Your task to perform on an android device: star an email in the gmail app Image 0: 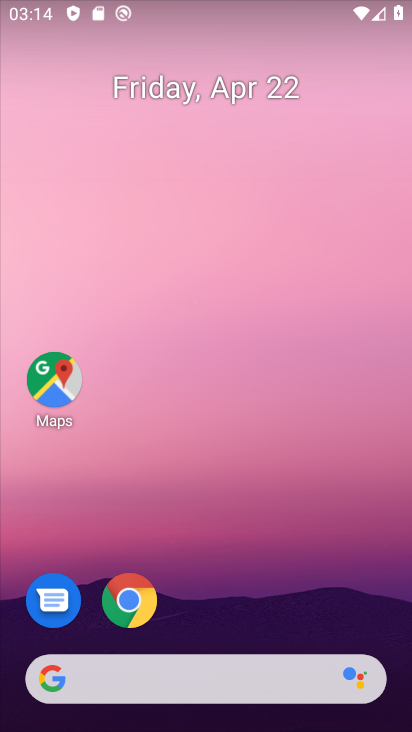
Step 0: drag from (225, 618) to (213, 120)
Your task to perform on an android device: star an email in the gmail app Image 1: 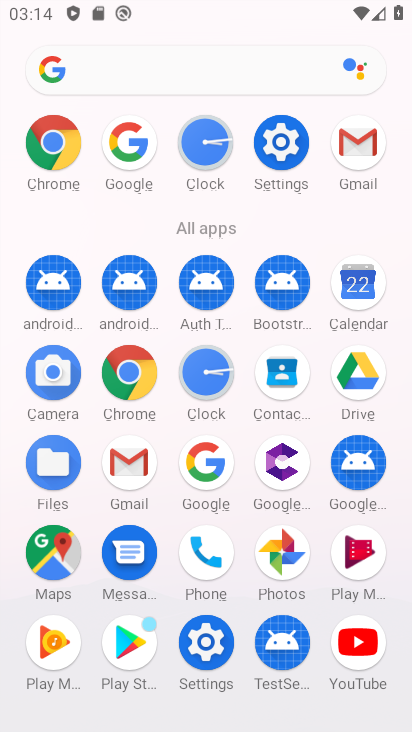
Step 1: click (368, 164)
Your task to perform on an android device: star an email in the gmail app Image 2: 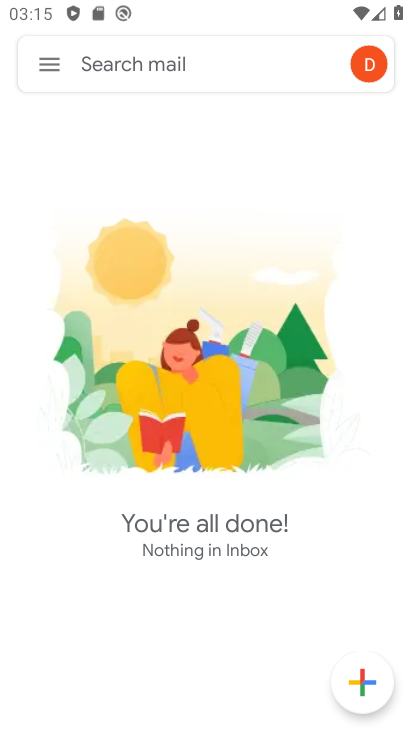
Step 2: click (60, 64)
Your task to perform on an android device: star an email in the gmail app Image 3: 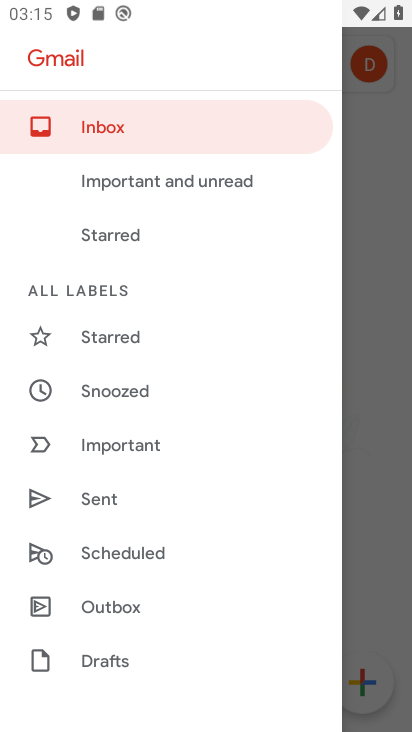
Step 3: drag from (159, 585) to (278, 243)
Your task to perform on an android device: star an email in the gmail app Image 4: 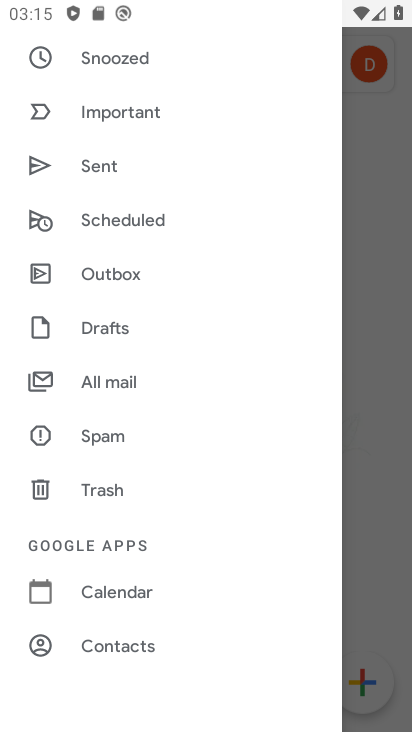
Step 4: click (122, 388)
Your task to perform on an android device: star an email in the gmail app Image 5: 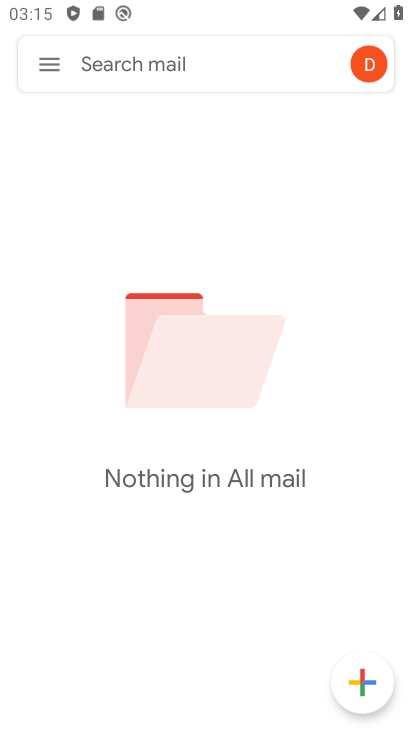
Step 5: task complete